Your task to perform on an android device: remove spam from my inbox in the gmail app Image 0: 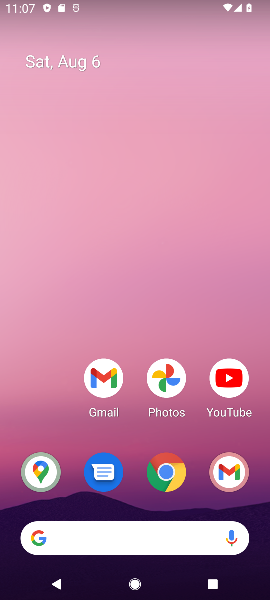
Step 0: drag from (233, 487) to (105, 150)
Your task to perform on an android device: remove spam from my inbox in the gmail app Image 1: 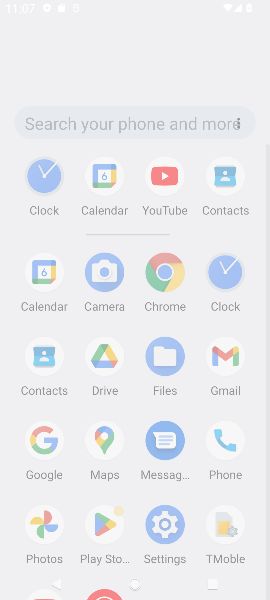
Step 1: drag from (152, 322) to (132, 190)
Your task to perform on an android device: remove spam from my inbox in the gmail app Image 2: 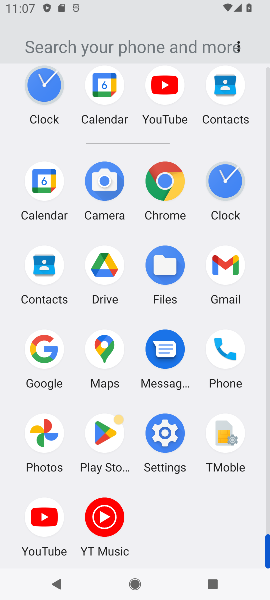
Step 2: click (220, 258)
Your task to perform on an android device: remove spam from my inbox in the gmail app Image 3: 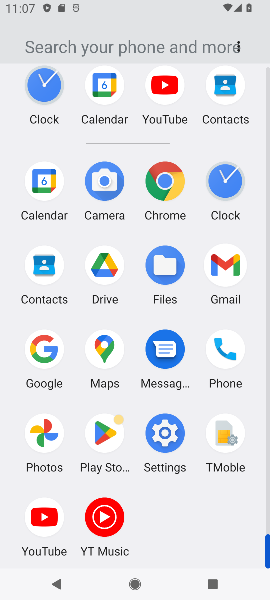
Step 3: click (220, 260)
Your task to perform on an android device: remove spam from my inbox in the gmail app Image 4: 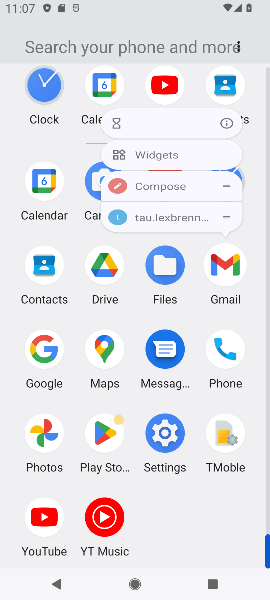
Step 4: click (220, 260)
Your task to perform on an android device: remove spam from my inbox in the gmail app Image 5: 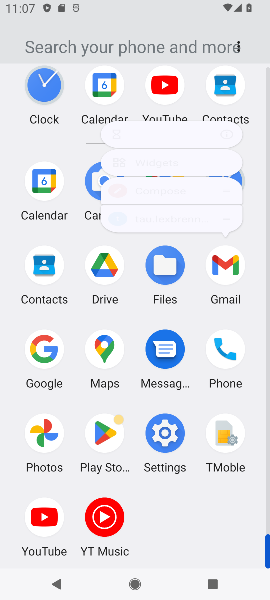
Step 5: click (225, 257)
Your task to perform on an android device: remove spam from my inbox in the gmail app Image 6: 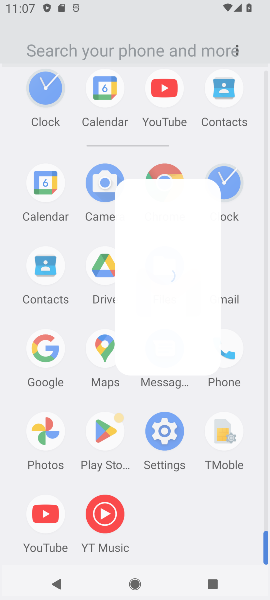
Step 6: click (224, 265)
Your task to perform on an android device: remove spam from my inbox in the gmail app Image 7: 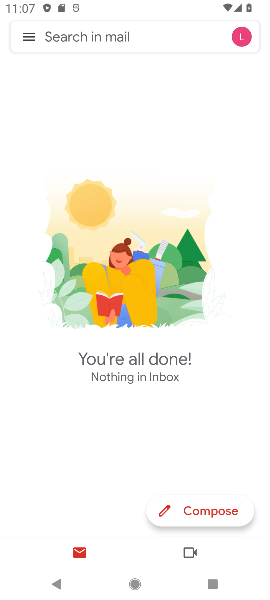
Step 7: click (27, 41)
Your task to perform on an android device: remove spam from my inbox in the gmail app Image 8: 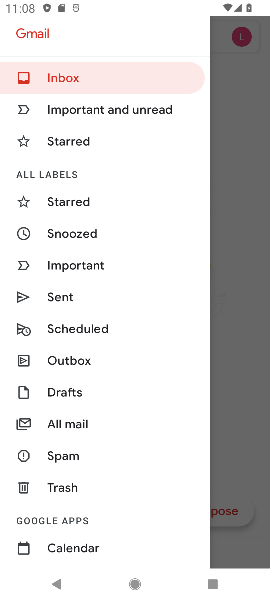
Step 8: click (63, 454)
Your task to perform on an android device: remove spam from my inbox in the gmail app Image 9: 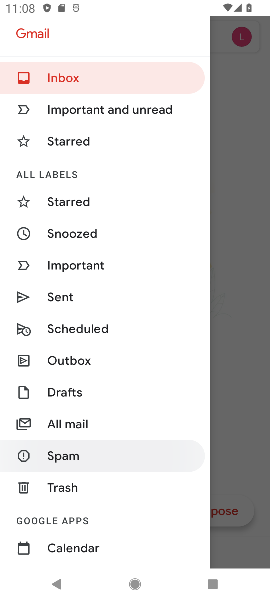
Step 9: click (63, 453)
Your task to perform on an android device: remove spam from my inbox in the gmail app Image 10: 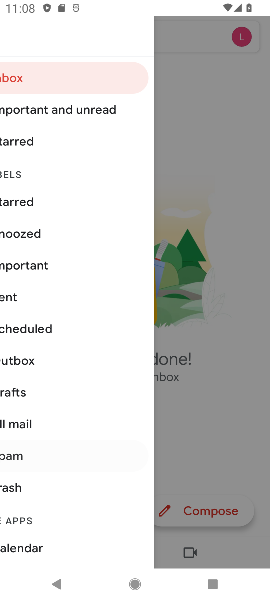
Step 10: click (65, 456)
Your task to perform on an android device: remove spam from my inbox in the gmail app Image 11: 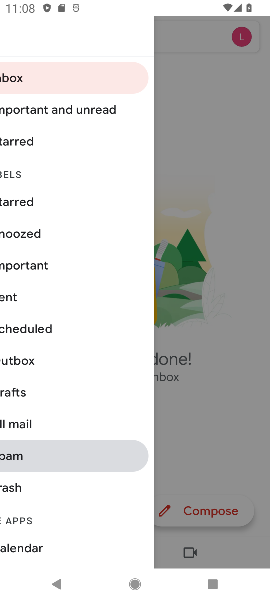
Step 11: click (68, 457)
Your task to perform on an android device: remove spam from my inbox in the gmail app Image 12: 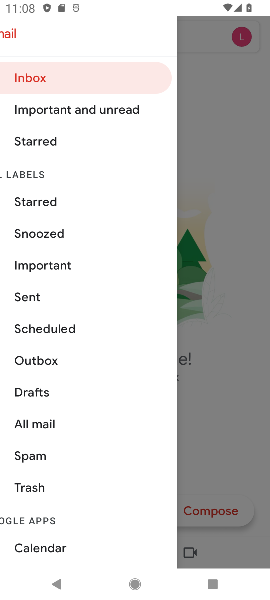
Step 12: click (68, 458)
Your task to perform on an android device: remove spam from my inbox in the gmail app Image 13: 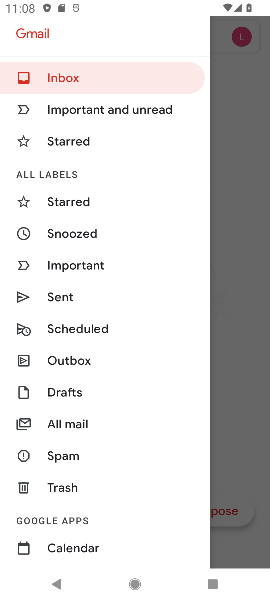
Step 13: click (62, 450)
Your task to perform on an android device: remove spam from my inbox in the gmail app Image 14: 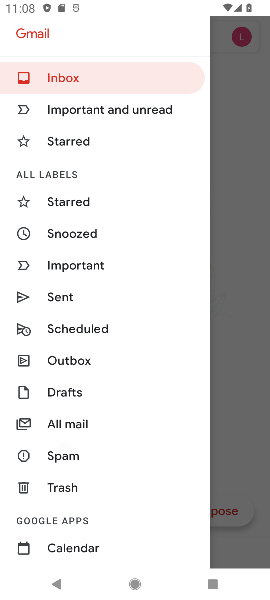
Step 14: click (62, 452)
Your task to perform on an android device: remove spam from my inbox in the gmail app Image 15: 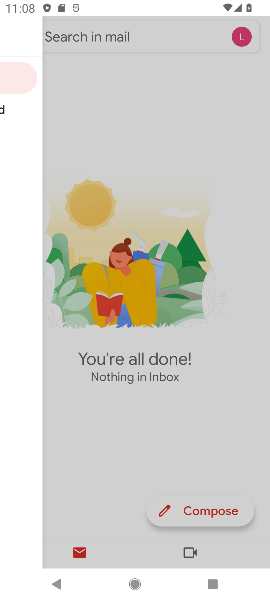
Step 15: click (61, 452)
Your task to perform on an android device: remove spam from my inbox in the gmail app Image 16: 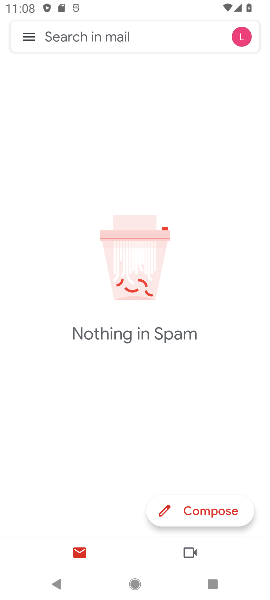
Step 16: task complete